Your task to perform on an android device: Go to Android settings Image 0: 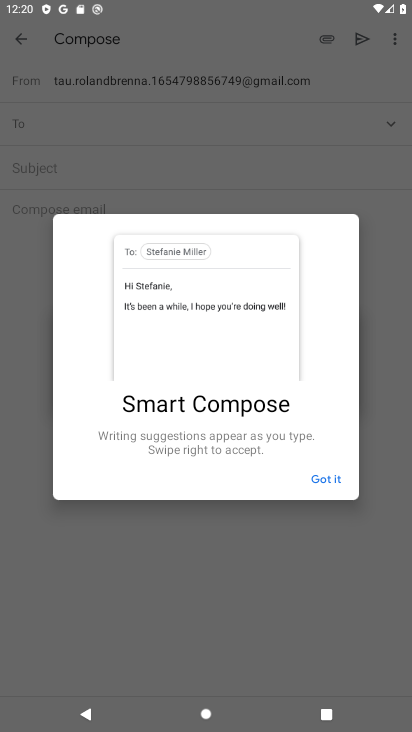
Step 0: press home button
Your task to perform on an android device: Go to Android settings Image 1: 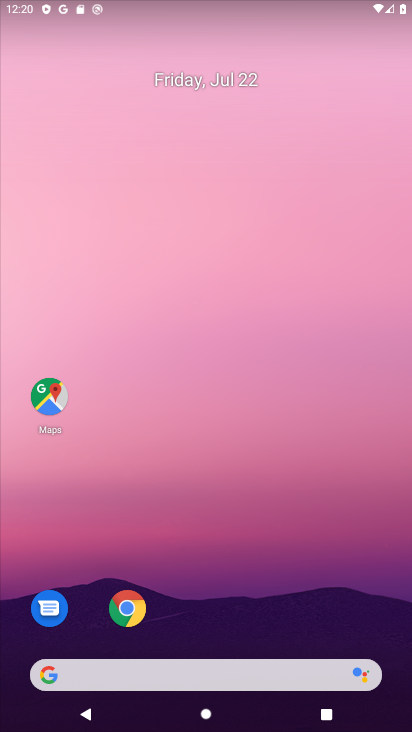
Step 1: drag from (213, 641) to (249, 301)
Your task to perform on an android device: Go to Android settings Image 2: 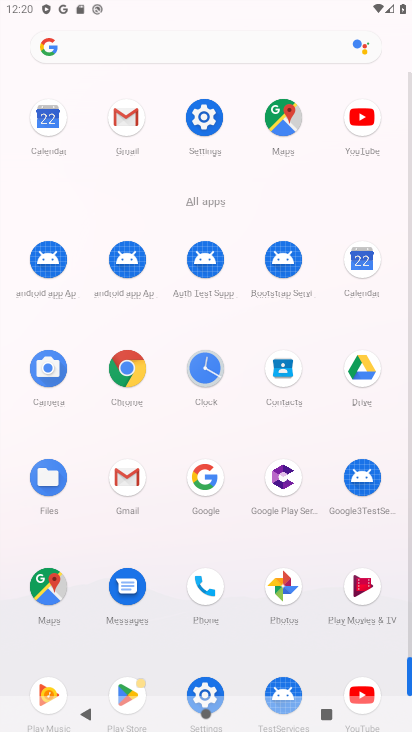
Step 2: click (200, 118)
Your task to perform on an android device: Go to Android settings Image 3: 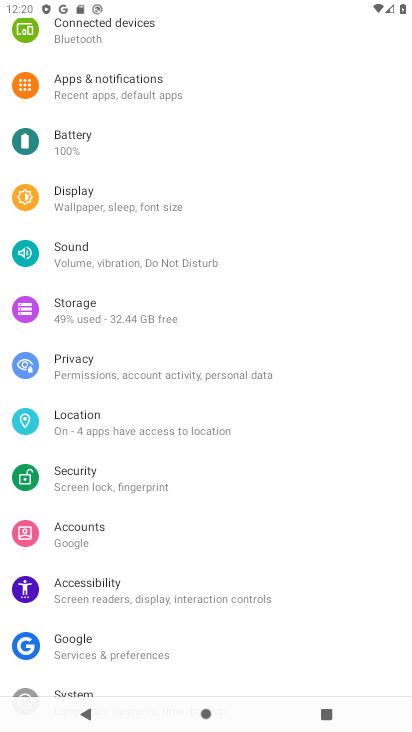
Step 3: drag from (118, 587) to (157, 313)
Your task to perform on an android device: Go to Android settings Image 4: 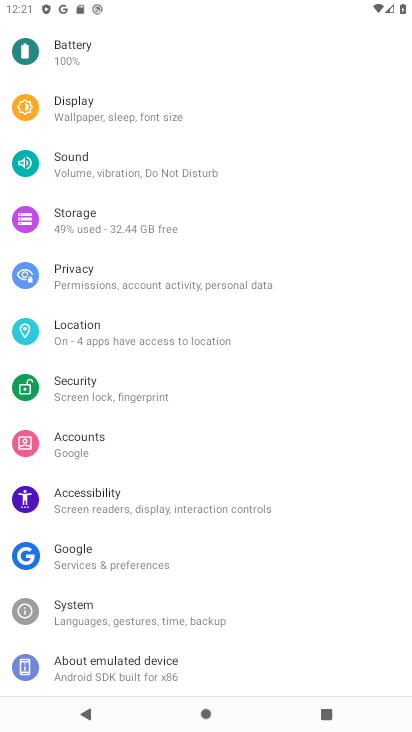
Step 4: click (106, 657)
Your task to perform on an android device: Go to Android settings Image 5: 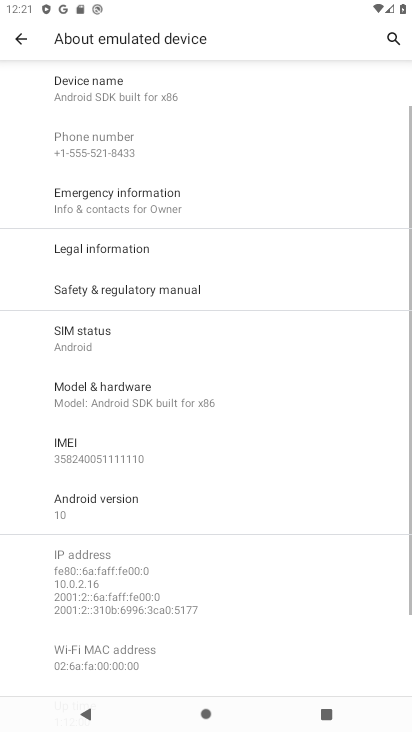
Step 5: task complete